Your task to perform on an android device: See recent photos Image 0: 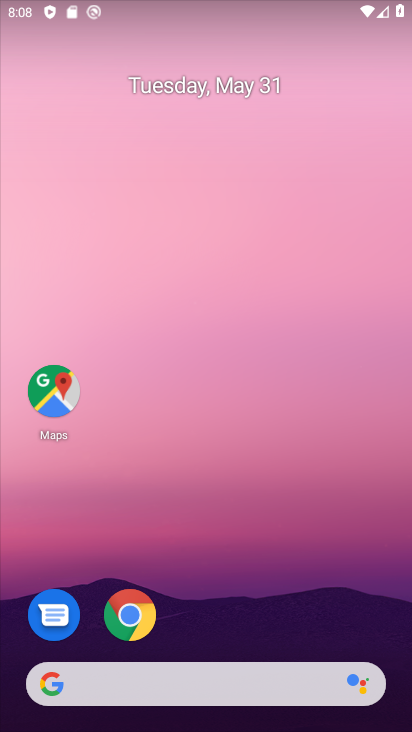
Step 0: drag from (394, 638) to (307, 167)
Your task to perform on an android device: See recent photos Image 1: 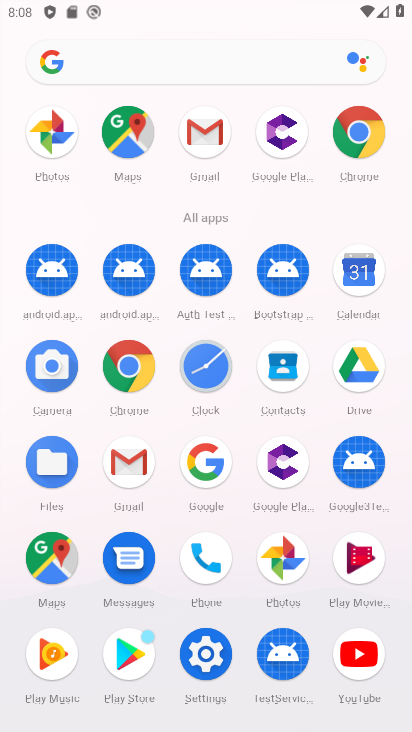
Step 1: click (282, 558)
Your task to perform on an android device: See recent photos Image 2: 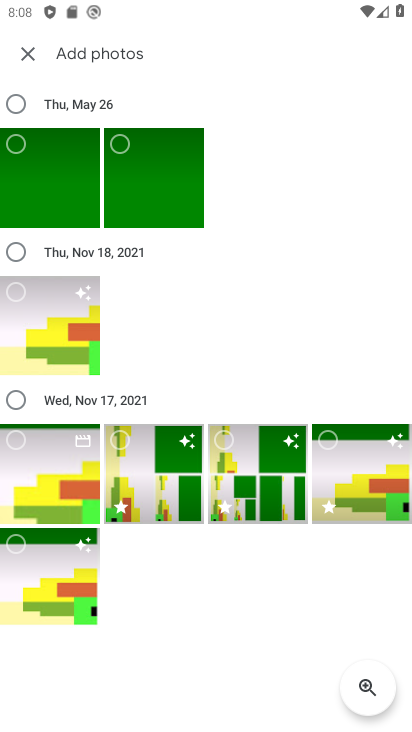
Step 2: click (29, 53)
Your task to perform on an android device: See recent photos Image 3: 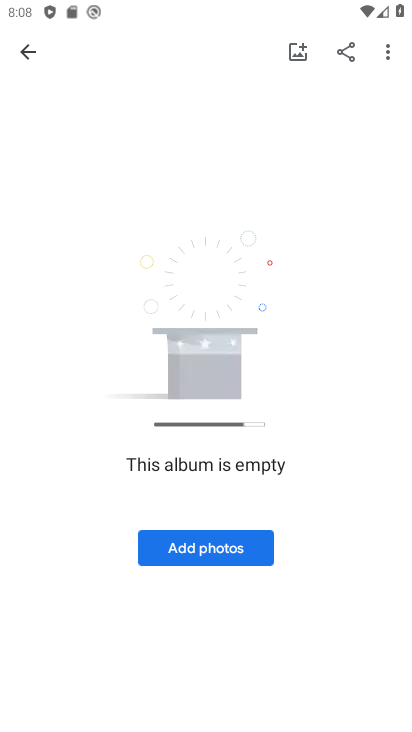
Step 3: press back button
Your task to perform on an android device: See recent photos Image 4: 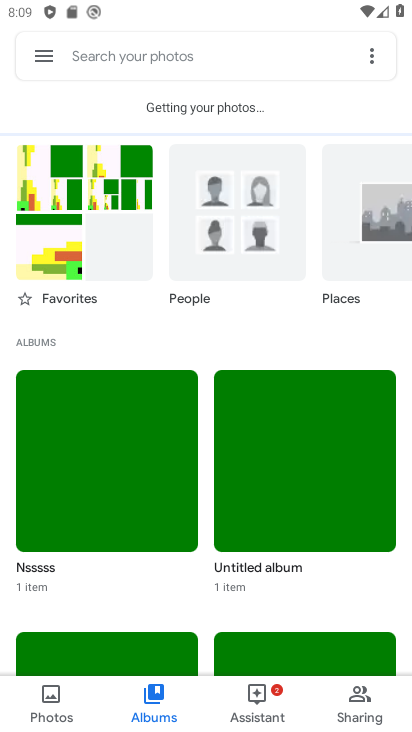
Step 4: click (56, 696)
Your task to perform on an android device: See recent photos Image 5: 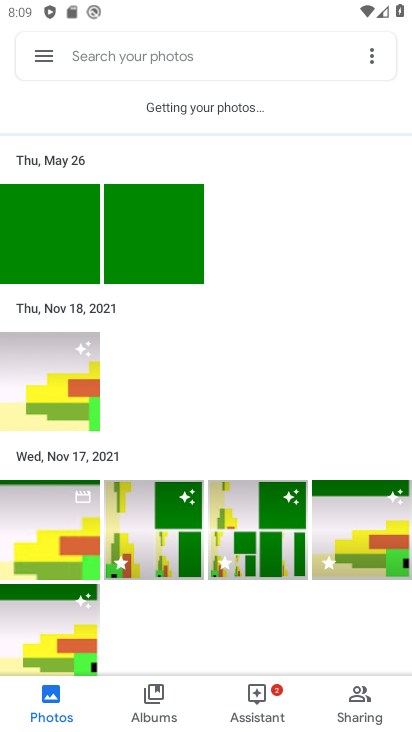
Step 5: task complete